Your task to perform on an android device: change the upload size in google photos Image 0: 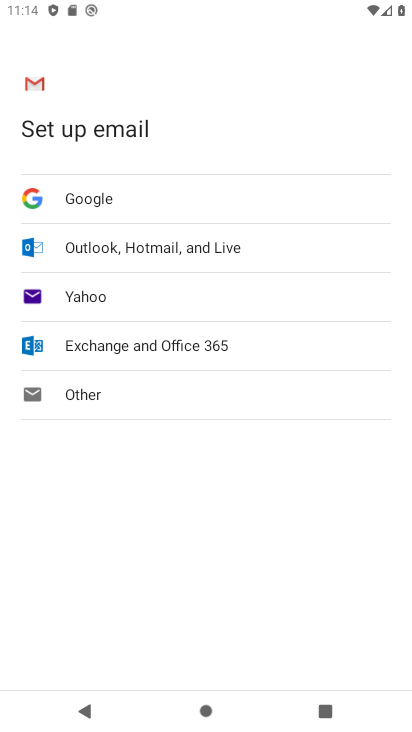
Step 0: press home button
Your task to perform on an android device: change the upload size in google photos Image 1: 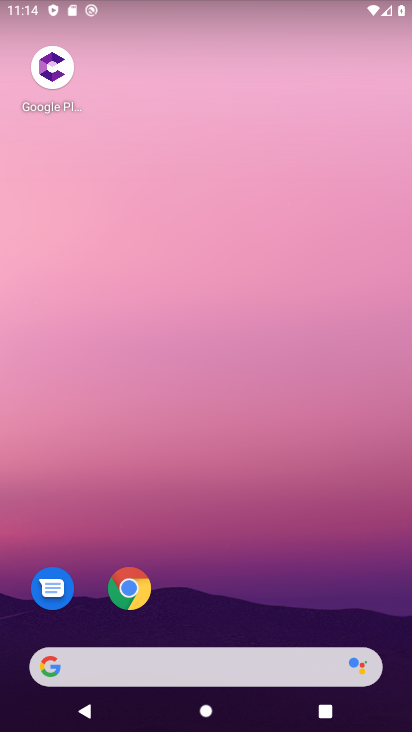
Step 1: drag from (348, 560) to (300, 38)
Your task to perform on an android device: change the upload size in google photos Image 2: 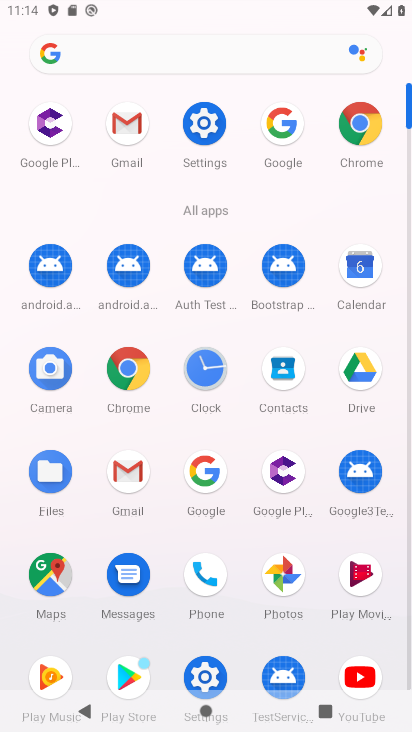
Step 2: click (294, 569)
Your task to perform on an android device: change the upload size in google photos Image 3: 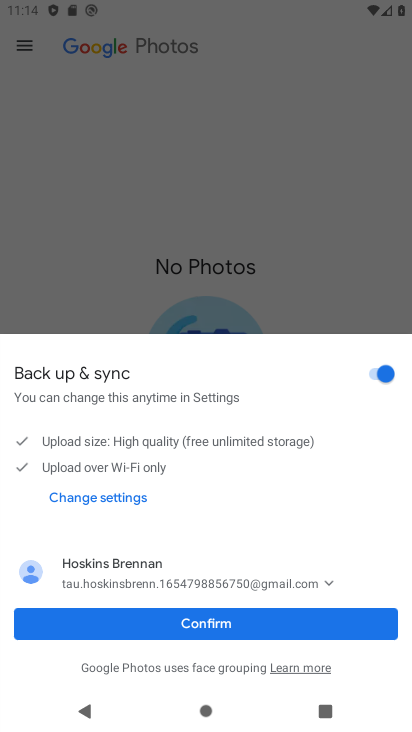
Step 3: click (254, 617)
Your task to perform on an android device: change the upload size in google photos Image 4: 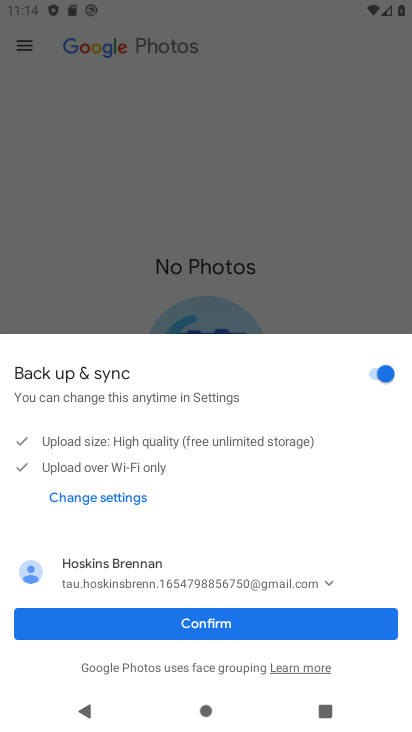
Step 4: click (254, 617)
Your task to perform on an android device: change the upload size in google photos Image 5: 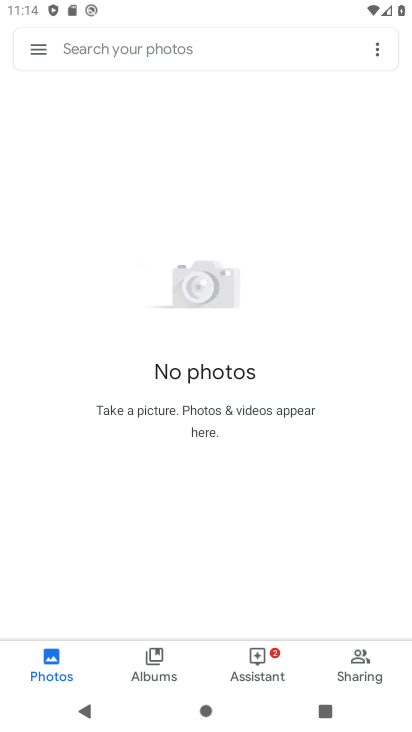
Step 5: click (37, 36)
Your task to perform on an android device: change the upload size in google photos Image 6: 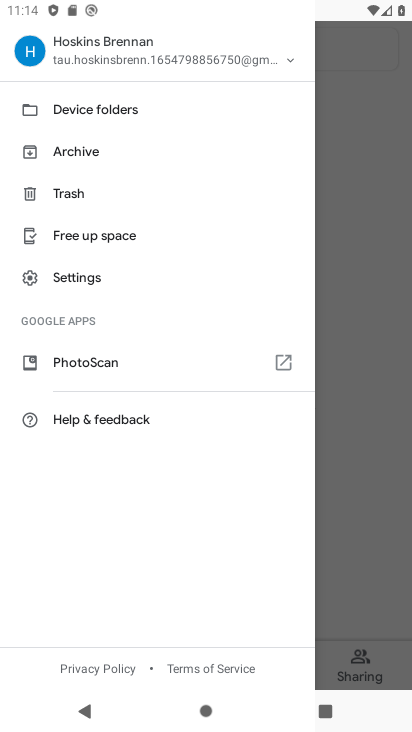
Step 6: click (92, 48)
Your task to perform on an android device: change the upload size in google photos Image 7: 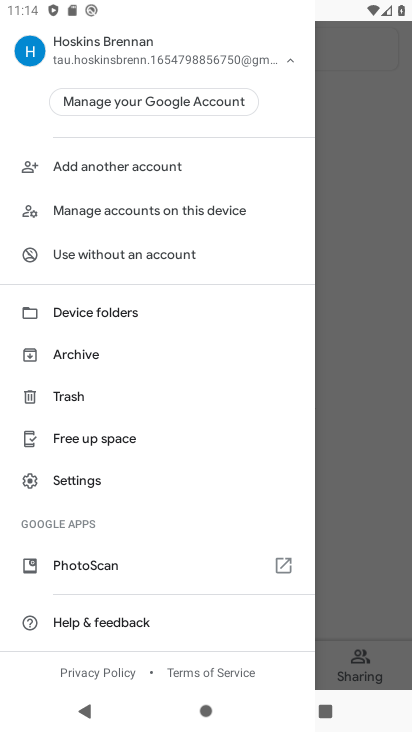
Step 7: click (91, 483)
Your task to perform on an android device: change the upload size in google photos Image 8: 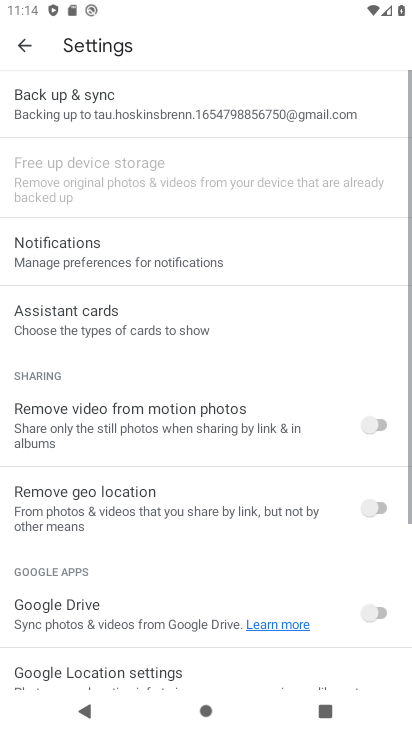
Step 8: click (91, 483)
Your task to perform on an android device: change the upload size in google photos Image 9: 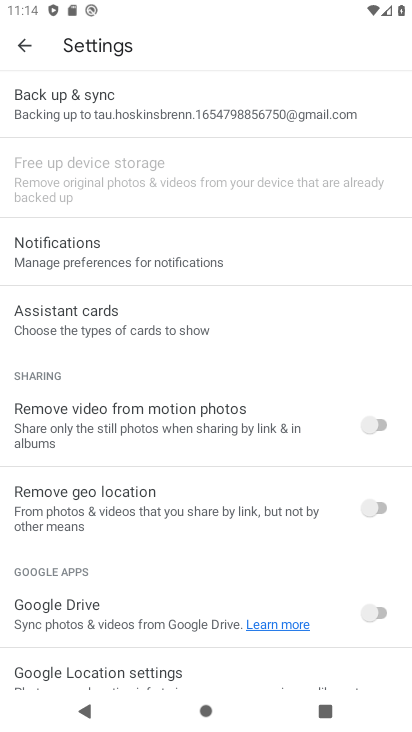
Step 9: click (169, 83)
Your task to perform on an android device: change the upload size in google photos Image 10: 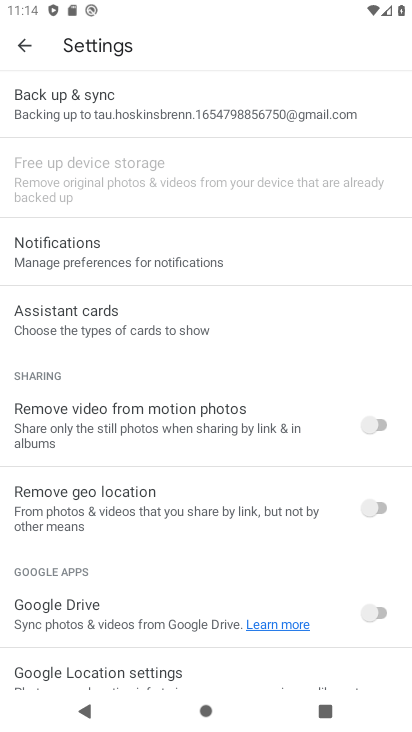
Step 10: click (169, 83)
Your task to perform on an android device: change the upload size in google photos Image 11: 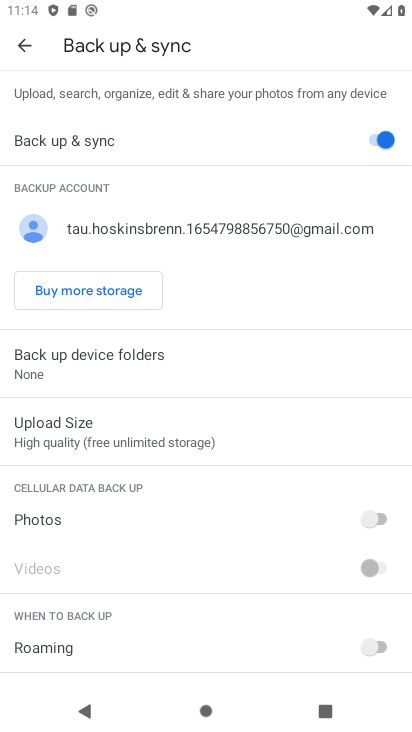
Step 11: click (112, 405)
Your task to perform on an android device: change the upload size in google photos Image 12: 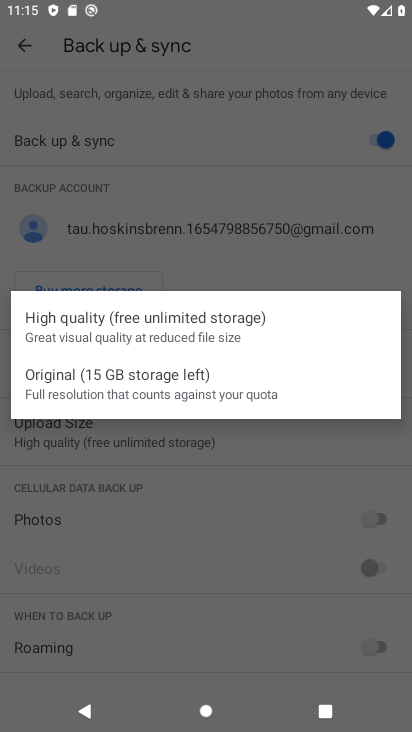
Step 12: click (123, 392)
Your task to perform on an android device: change the upload size in google photos Image 13: 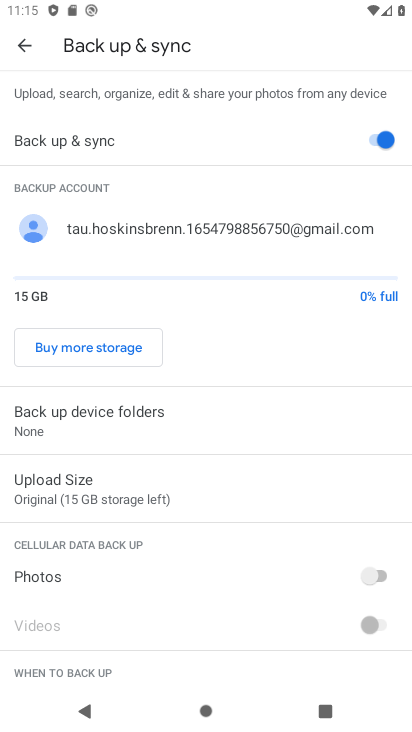
Step 13: task complete